Your task to perform on an android device: Go to Yahoo.com Image 0: 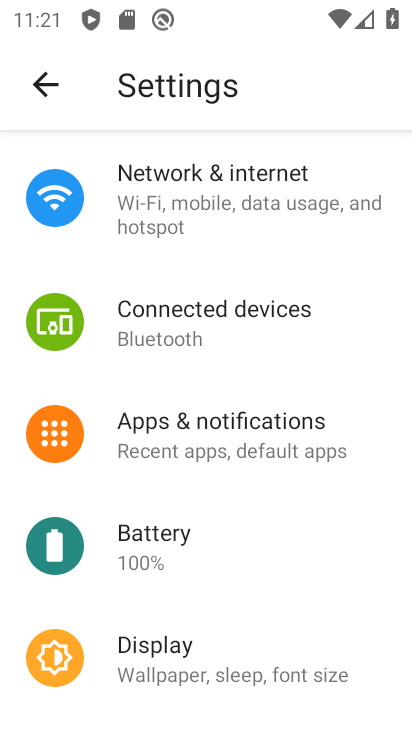
Step 0: press home button
Your task to perform on an android device: Go to Yahoo.com Image 1: 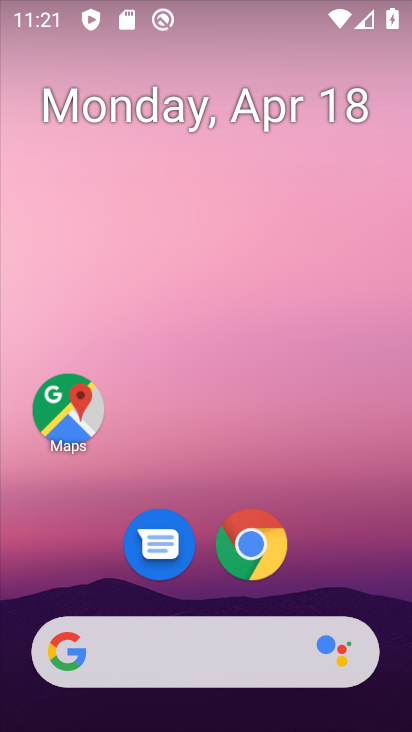
Step 1: click (246, 547)
Your task to perform on an android device: Go to Yahoo.com Image 2: 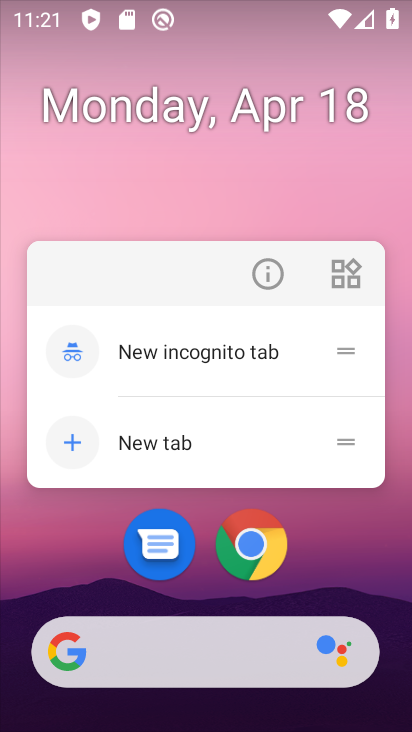
Step 2: click (263, 544)
Your task to perform on an android device: Go to Yahoo.com Image 3: 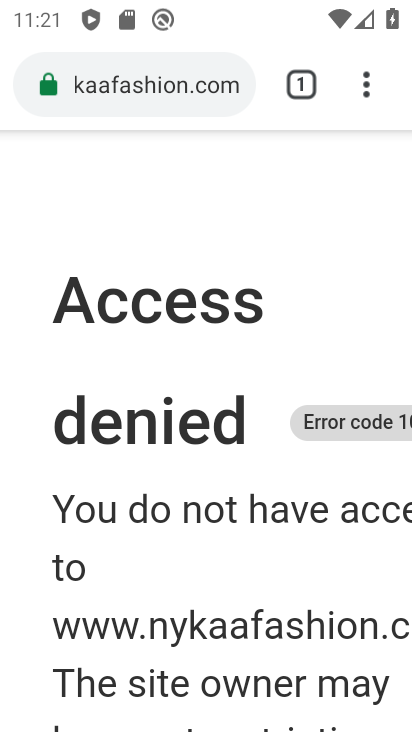
Step 3: click (365, 84)
Your task to perform on an android device: Go to Yahoo.com Image 4: 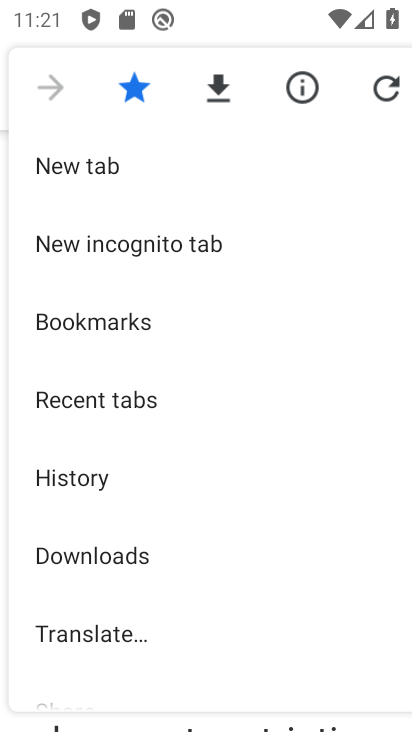
Step 4: click (107, 168)
Your task to perform on an android device: Go to Yahoo.com Image 5: 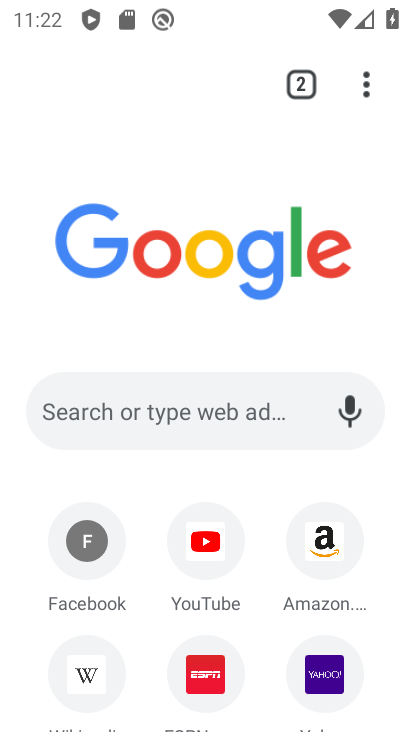
Step 5: click (322, 667)
Your task to perform on an android device: Go to Yahoo.com Image 6: 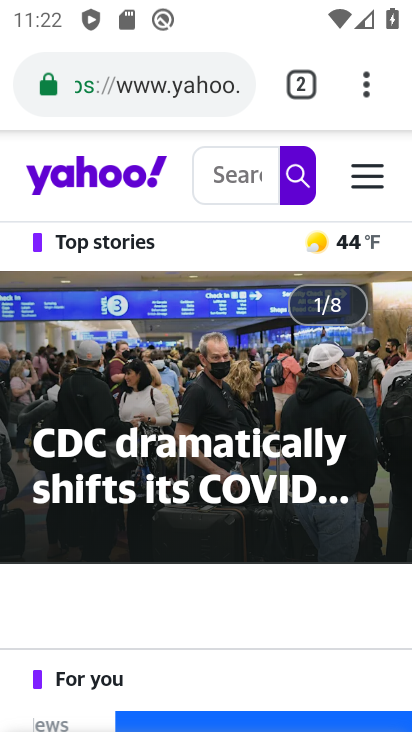
Step 6: task complete